Your task to perform on an android device: turn off data saver in the chrome app Image 0: 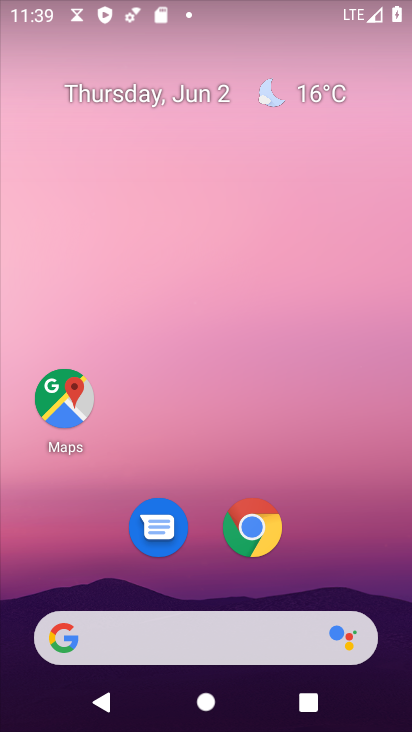
Step 0: click (247, 514)
Your task to perform on an android device: turn off data saver in the chrome app Image 1: 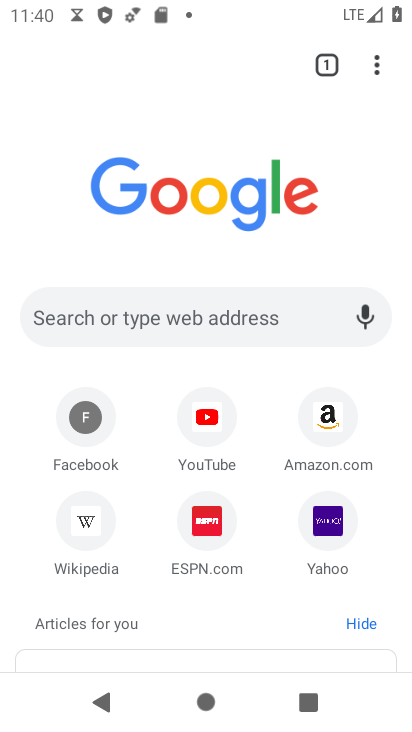
Step 1: click (380, 60)
Your task to perform on an android device: turn off data saver in the chrome app Image 2: 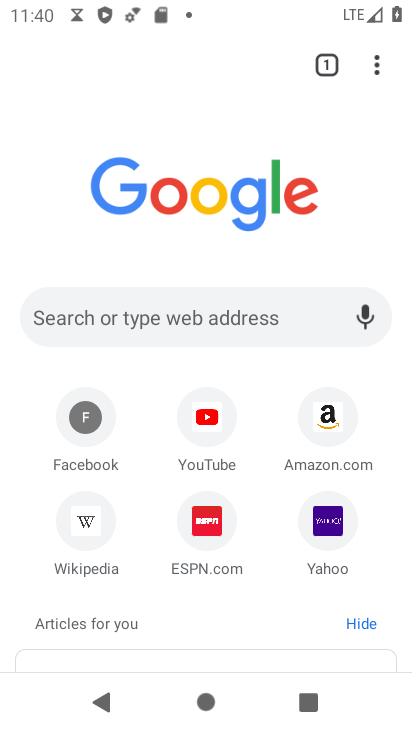
Step 2: drag from (379, 64) to (188, 537)
Your task to perform on an android device: turn off data saver in the chrome app Image 3: 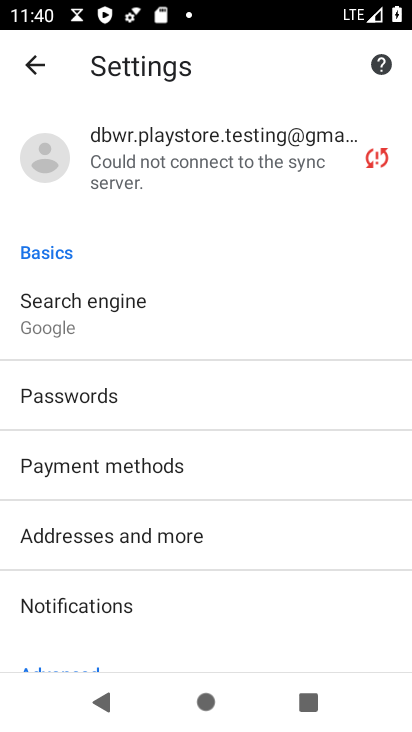
Step 3: drag from (148, 608) to (101, 133)
Your task to perform on an android device: turn off data saver in the chrome app Image 4: 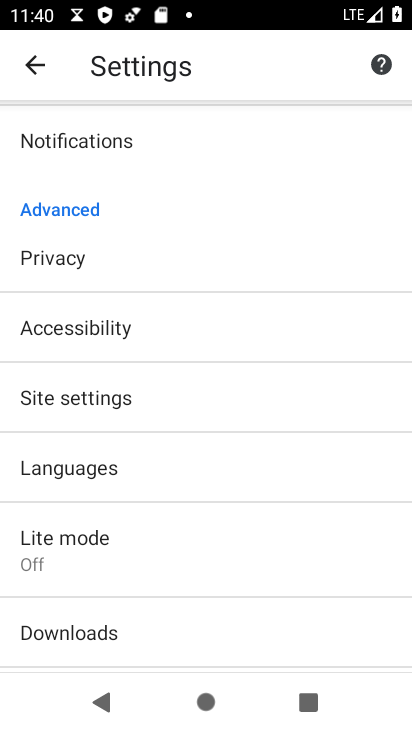
Step 4: click (126, 540)
Your task to perform on an android device: turn off data saver in the chrome app Image 5: 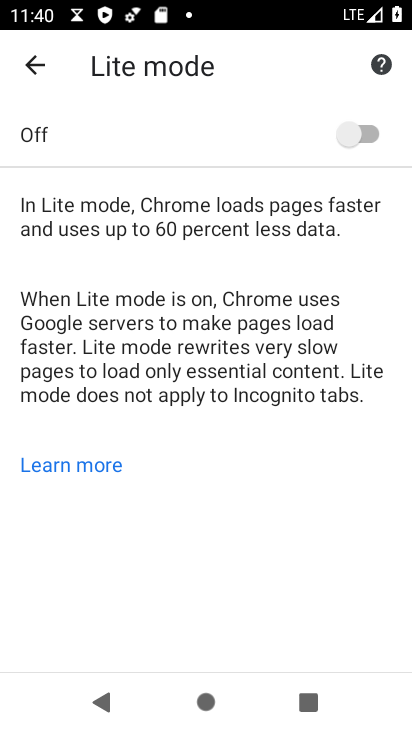
Step 5: task complete